Your task to perform on an android device: change keyboard looks Image 0: 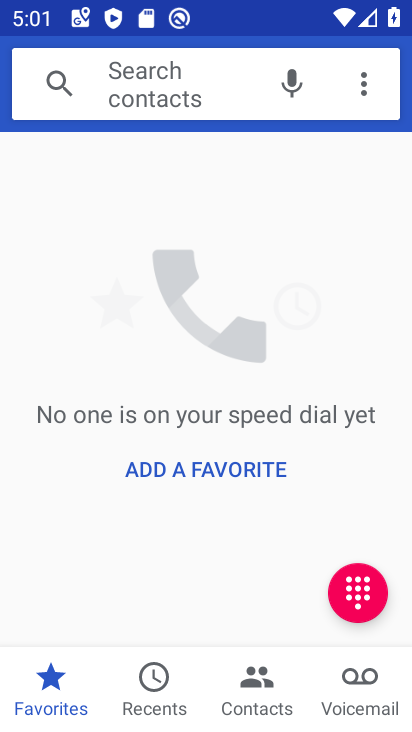
Step 0: press home button
Your task to perform on an android device: change keyboard looks Image 1: 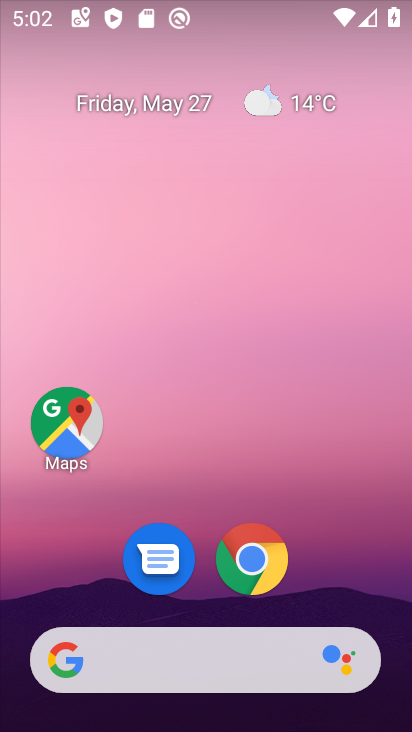
Step 1: drag from (320, 508) to (391, 13)
Your task to perform on an android device: change keyboard looks Image 2: 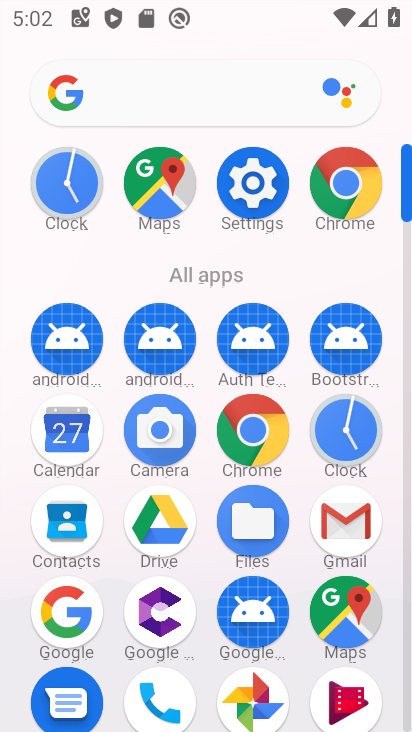
Step 2: click (255, 183)
Your task to perform on an android device: change keyboard looks Image 3: 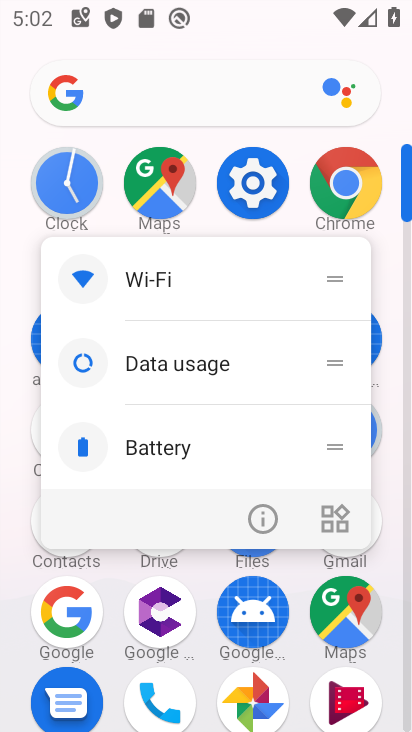
Step 3: click (256, 190)
Your task to perform on an android device: change keyboard looks Image 4: 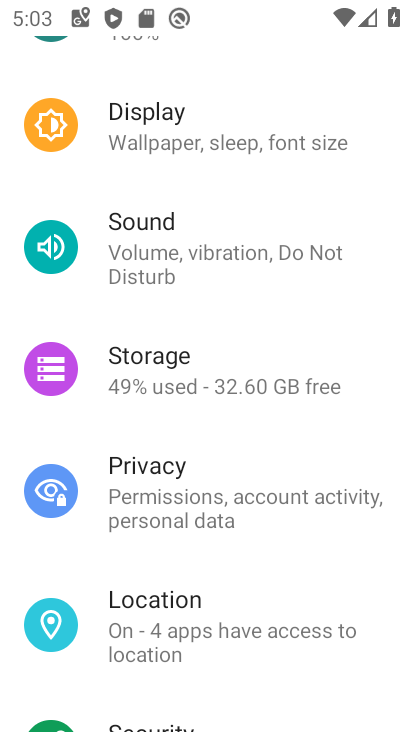
Step 4: drag from (217, 569) to (273, 122)
Your task to perform on an android device: change keyboard looks Image 5: 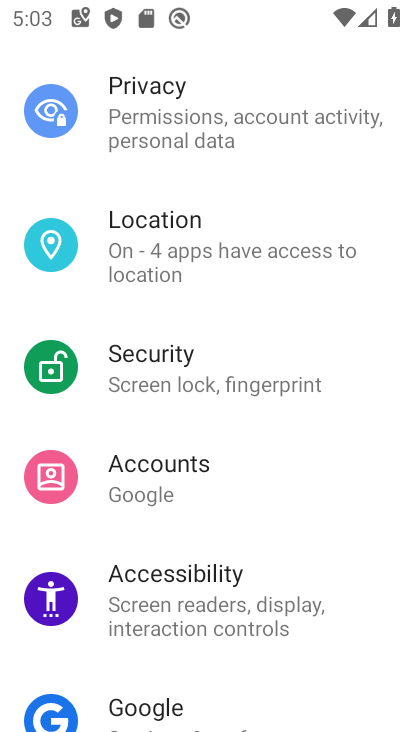
Step 5: drag from (212, 721) to (295, 182)
Your task to perform on an android device: change keyboard looks Image 6: 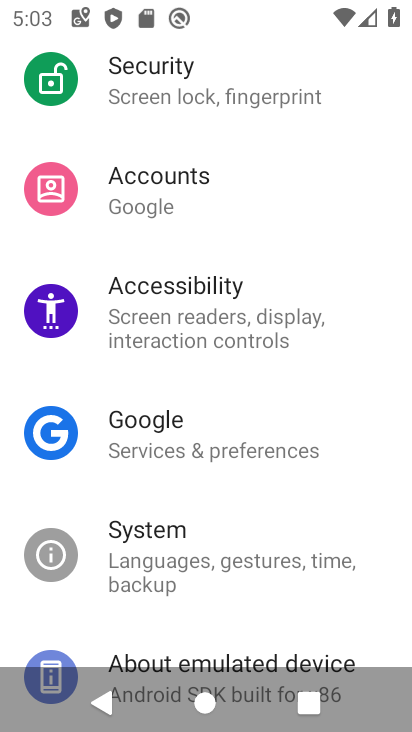
Step 6: click (156, 559)
Your task to perform on an android device: change keyboard looks Image 7: 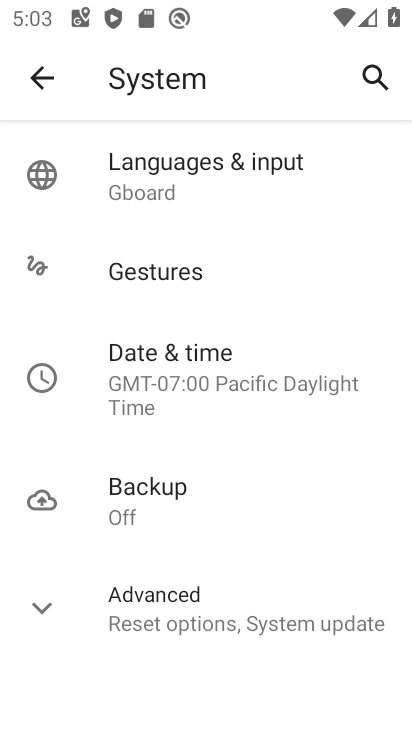
Step 7: click (227, 168)
Your task to perform on an android device: change keyboard looks Image 8: 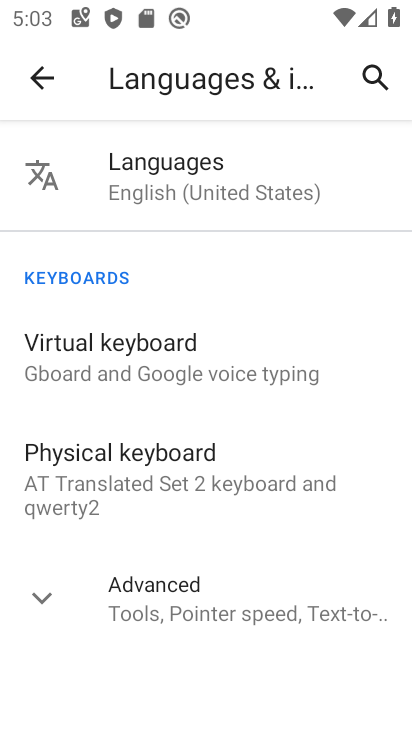
Step 8: click (124, 349)
Your task to perform on an android device: change keyboard looks Image 9: 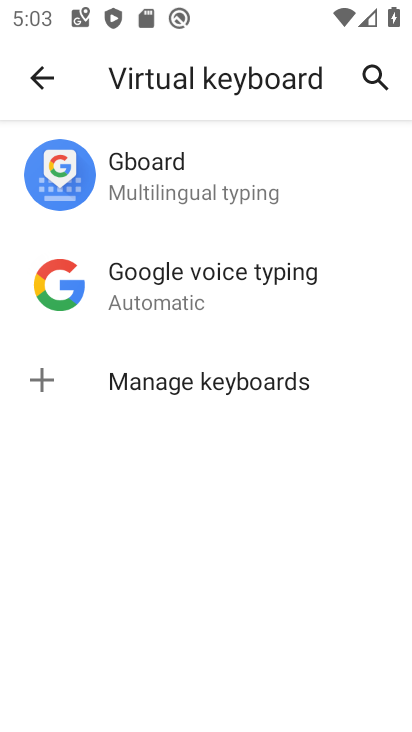
Step 9: click (133, 178)
Your task to perform on an android device: change keyboard looks Image 10: 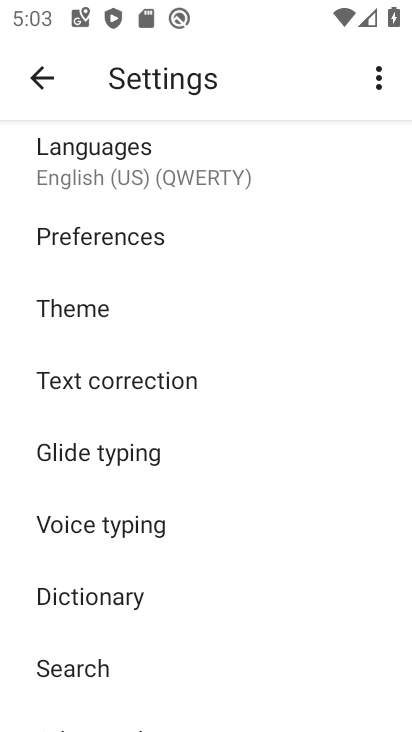
Step 10: click (82, 304)
Your task to perform on an android device: change keyboard looks Image 11: 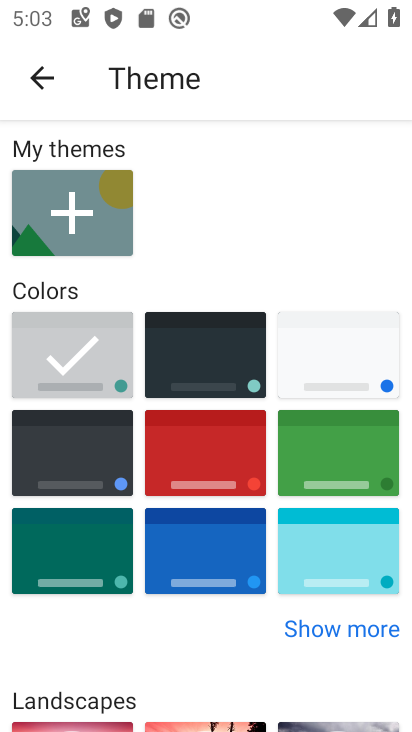
Step 11: click (209, 381)
Your task to perform on an android device: change keyboard looks Image 12: 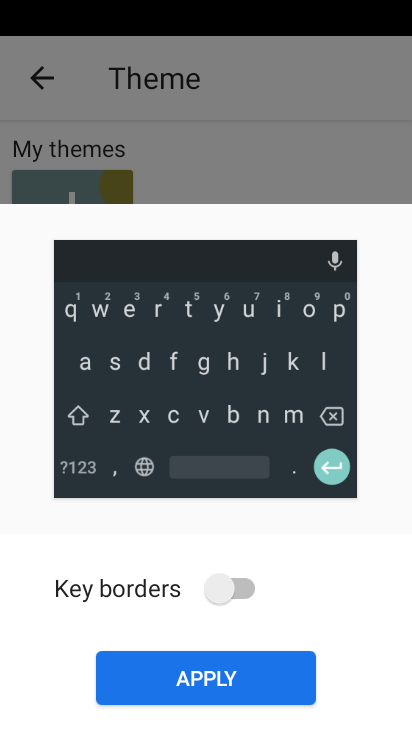
Step 12: click (236, 587)
Your task to perform on an android device: change keyboard looks Image 13: 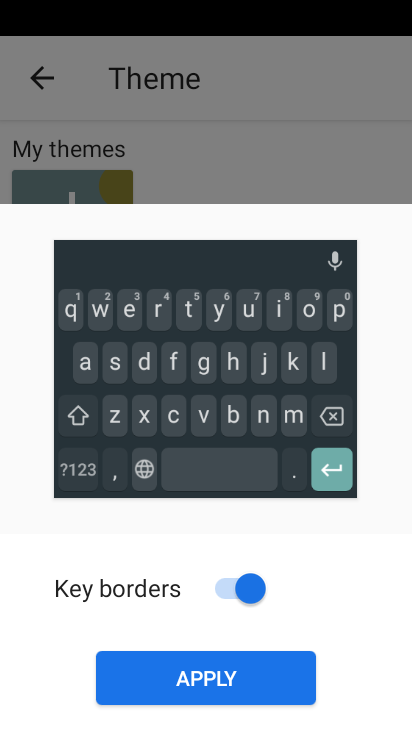
Step 13: click (261, 689)
Your task to perform on an android device: change keyboard looks Image 14: 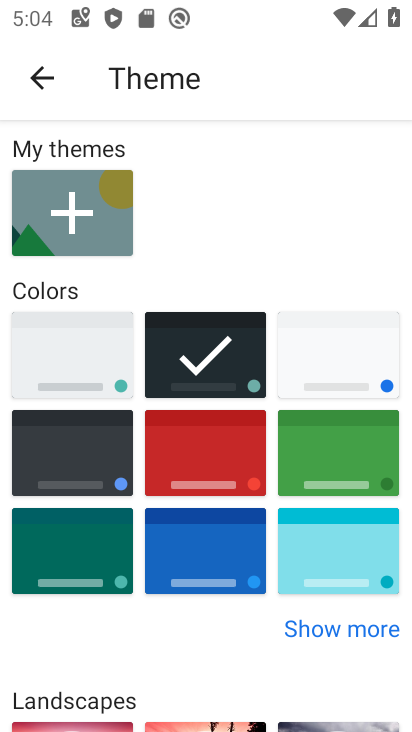
Step 14: task complete